Your task to perform on an android device: add a contact Image 0: 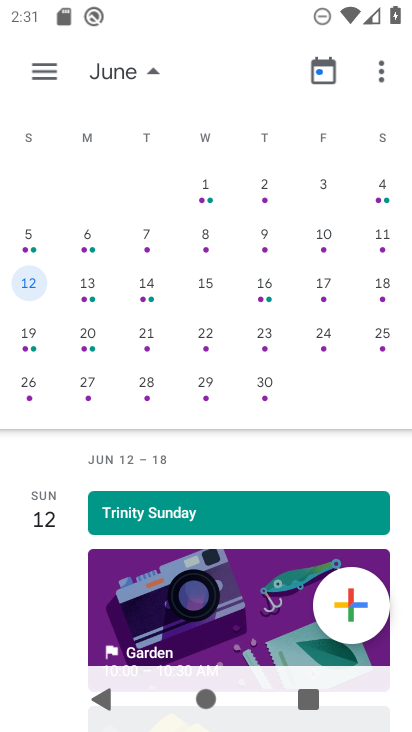
Step 0: press home button
Your task to perform on an android device: add a contact Image 1: 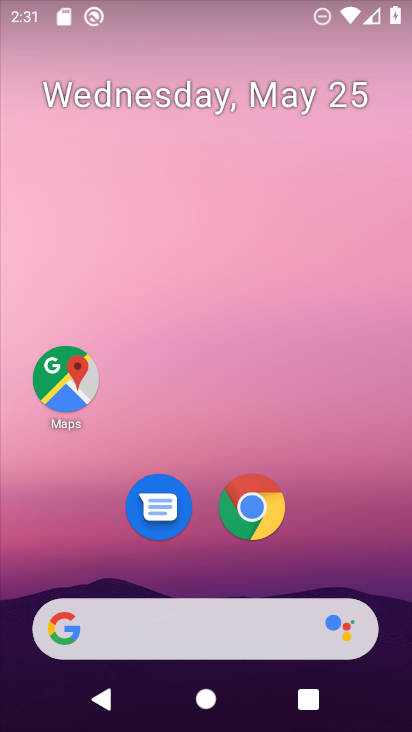
Step 1: drag from (251, 579) to (303, 194)
Your task to perform on an android device: add a contact Image 2: 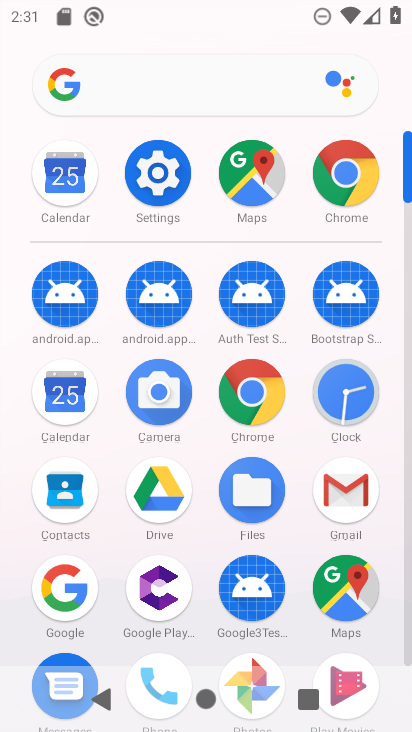
Step 2: drag from (157, 506) to (244, 260)
Your task to perform on an android device: add a contact Image 3: 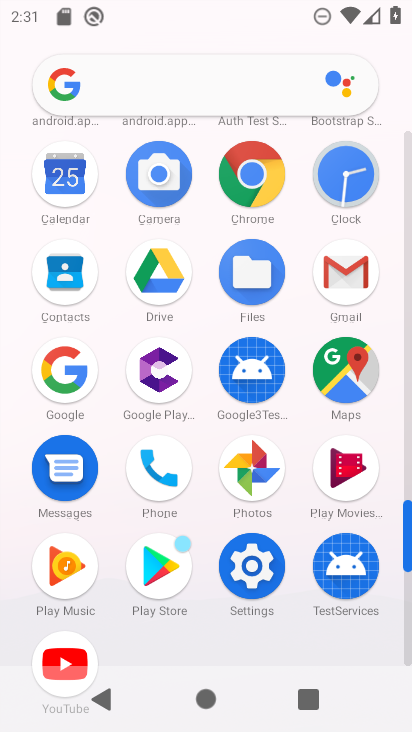
Step 3: drag from (94, 316) to (95, 491)
Your task to perform on an android device: add a contact Image 4: 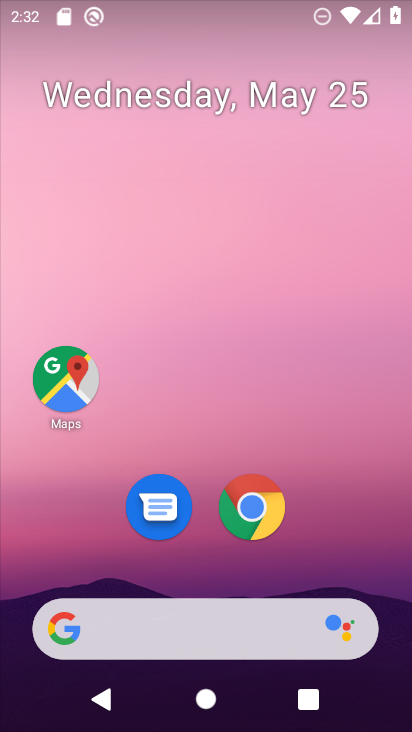
Step 4: drag from (169, 537) to (215, 195)
Your task to perform on an android device: add a contact Image 5: 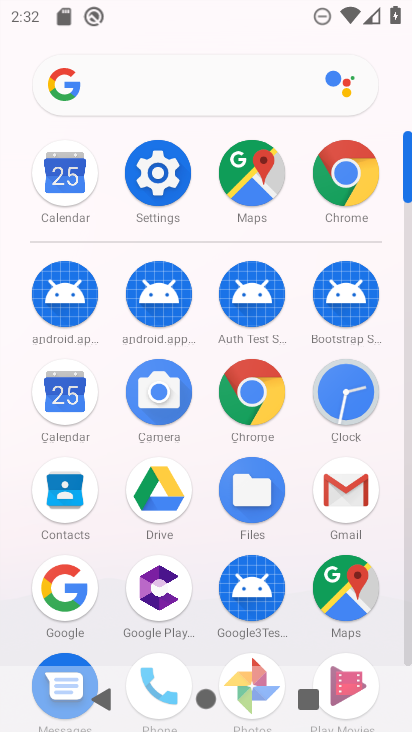
Step 5: click (82, 497)
Your task to perform on an android device: add a contact Image 6: 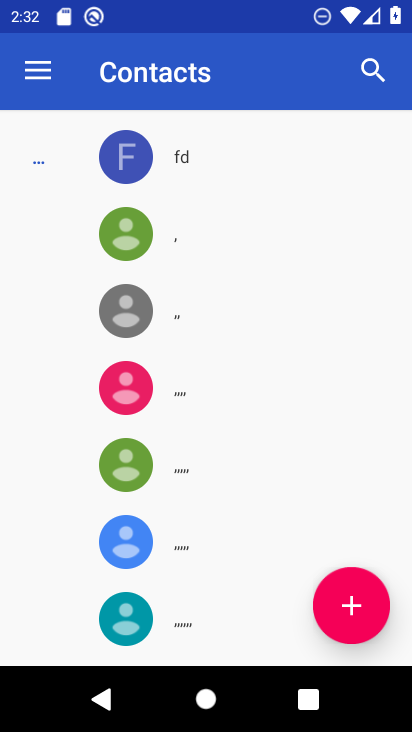
Step 6: click (338, 613)
Your task to perform on an android device: add a contact Image 7: 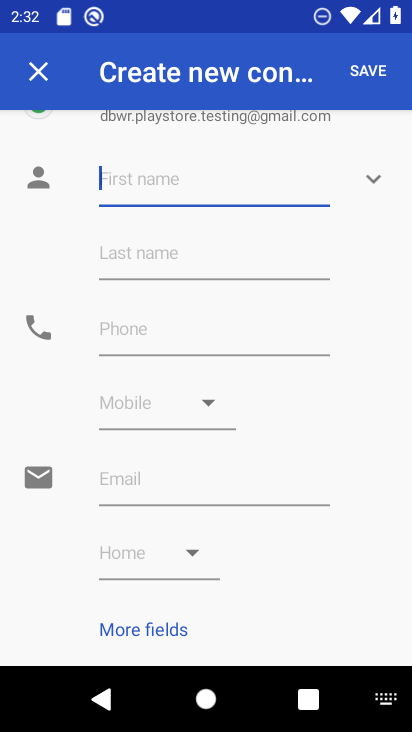
Step 7: type "j"
Your task to perform on an android device: add a contact Image 8: 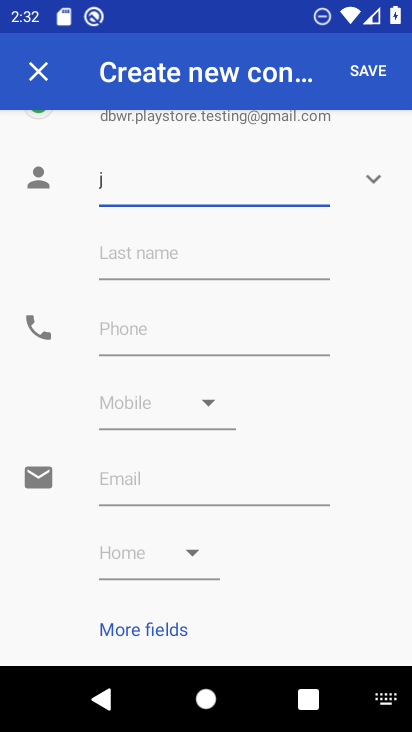
Step 8: click (258, 340)
Your task to perform on an android device: add a contact Image 9: 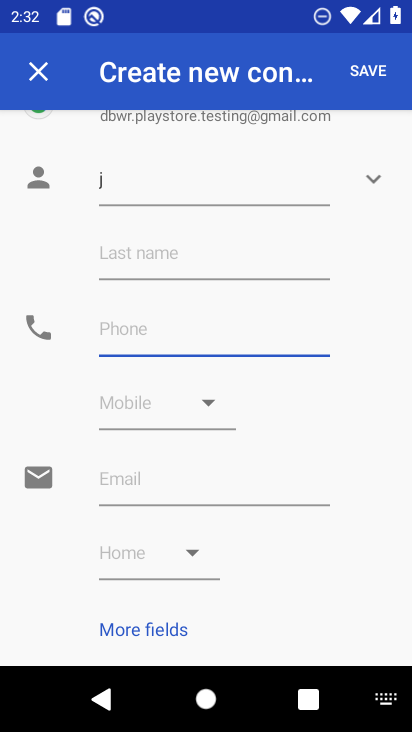
Step 9: type "7544657645"
Your task to perform on an android device: add a contact Image 10: 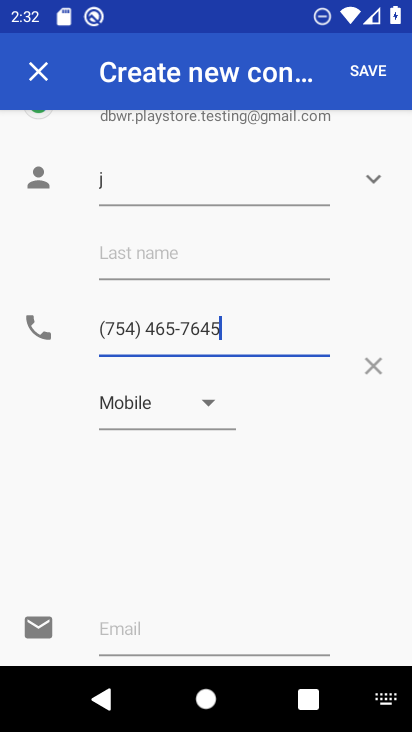
Step 10: type ""
Your task to perform on an android device: add a contact Image 11: 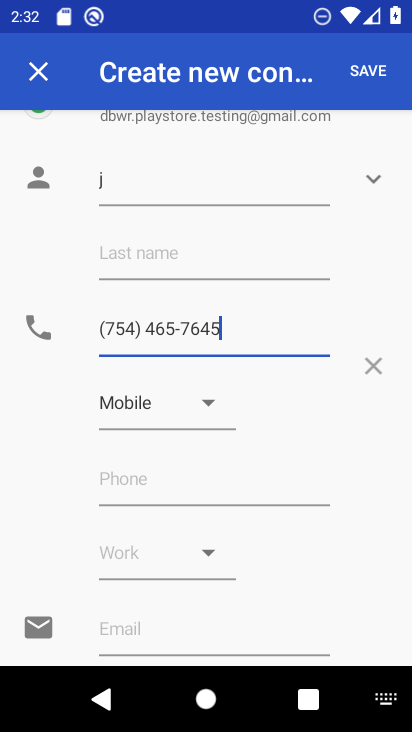
Step 11: click (367, 67)
Your task to perform on an android device: add a contact Image 12: 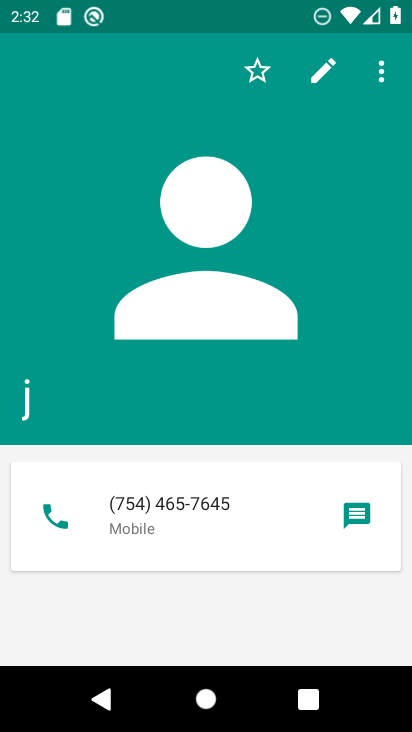
Step 12: task complete